Your task to perform on an android device: toggle location history Image 0: 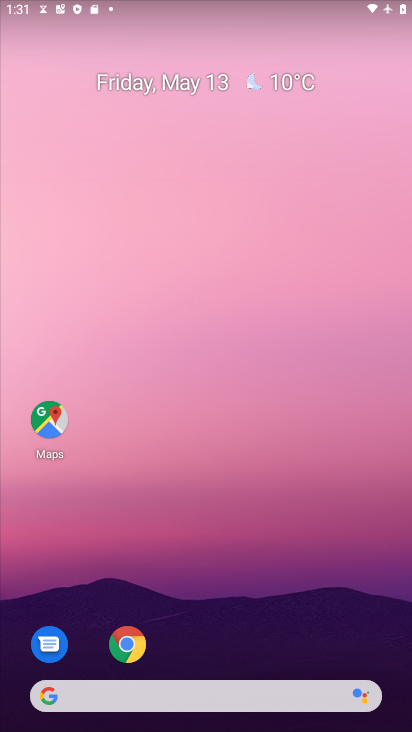
Step 0: drag from (213, 717) to (213, 123)
Your task to perform on an android device: toggle location history Image 1: 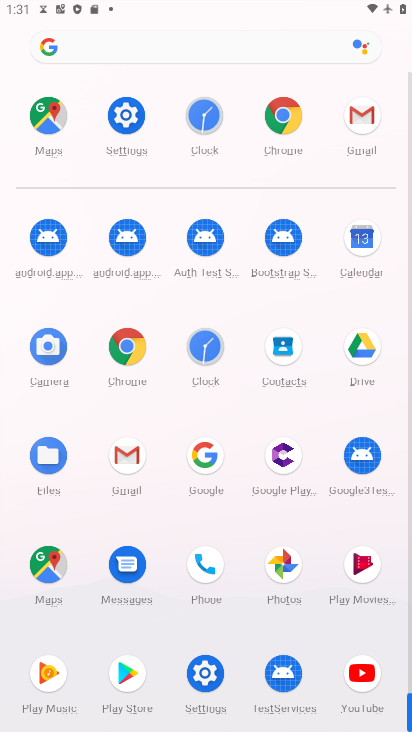
Step 1: click (126, 112)
Your task to perform on an android device: toggle location history Image 2: 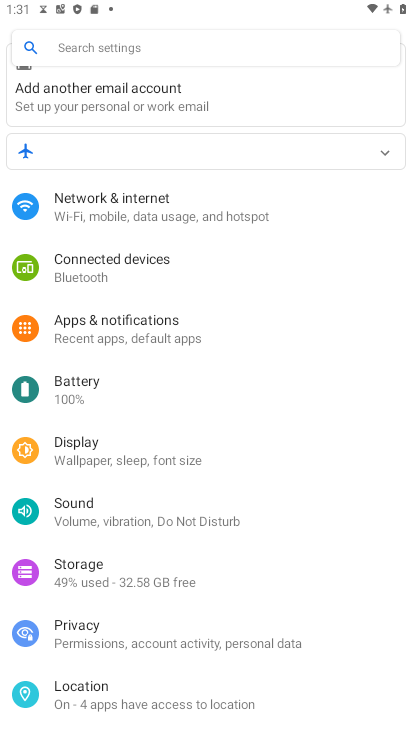
Step 2: click (82, 691)
Your task to perform on an android device: toggle location history Image 3: 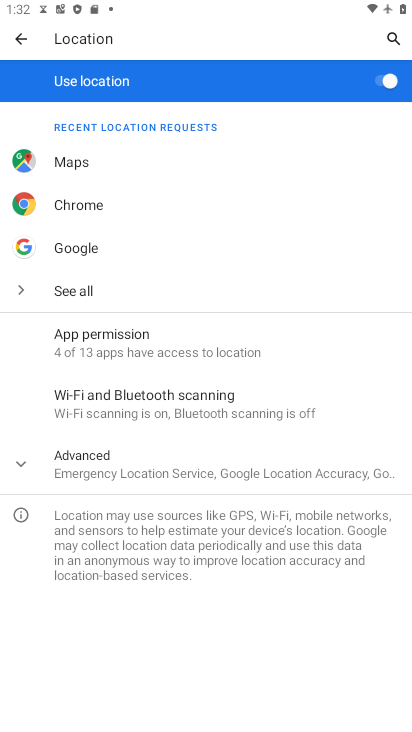
Step 3: click (70, 465)
Your task to perform on an android device: toggle location history Image 4: 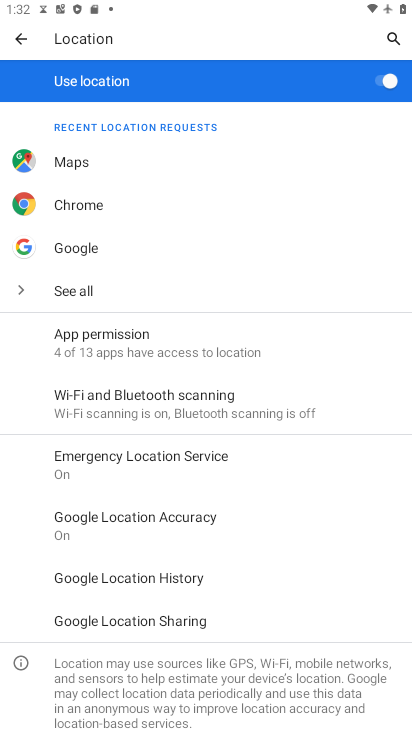
Step 4: click (111, 576)
Your task to perform on an android device: toggle location history Image 5: 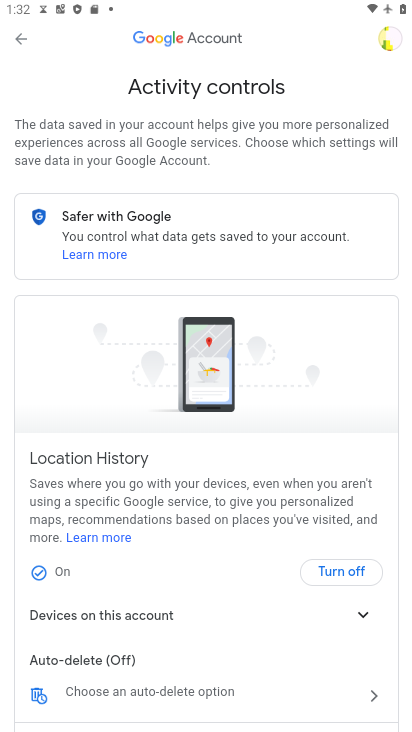
Step 5: click (337, 568)
Your task to perform on an android device: toggle location history Image 6: 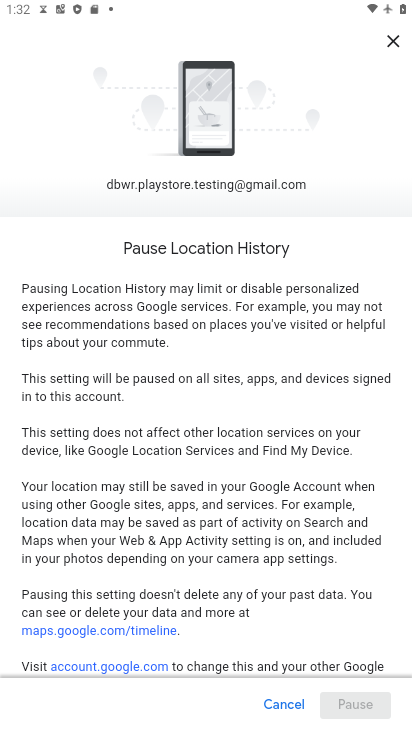
Step 6: drag from (282, 642) to (281, 217)
Your task to perform on an android device: toggle location history Image 7: 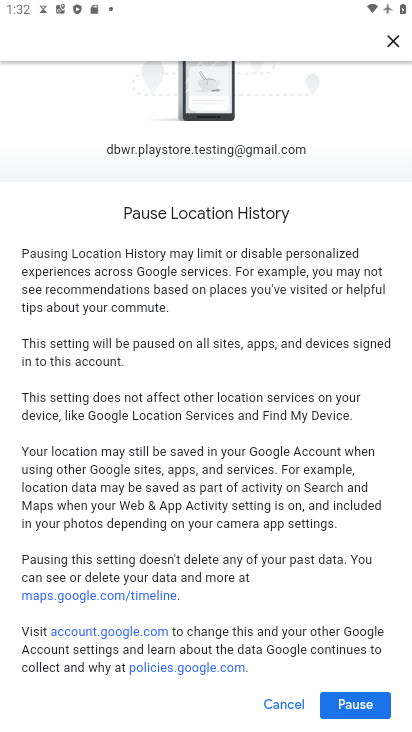
Step 7: click (349, 701)
Your task to perform on an android device: toggle location history Image 8: 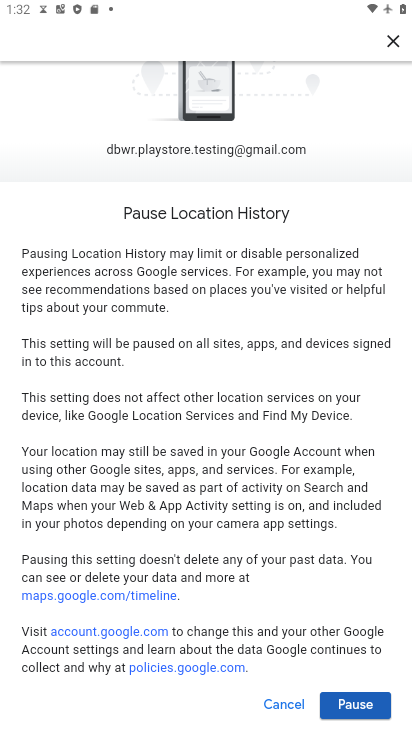
Step 8: click (350, 699)
Your task to perform on an android device: toggle location history Image 9: 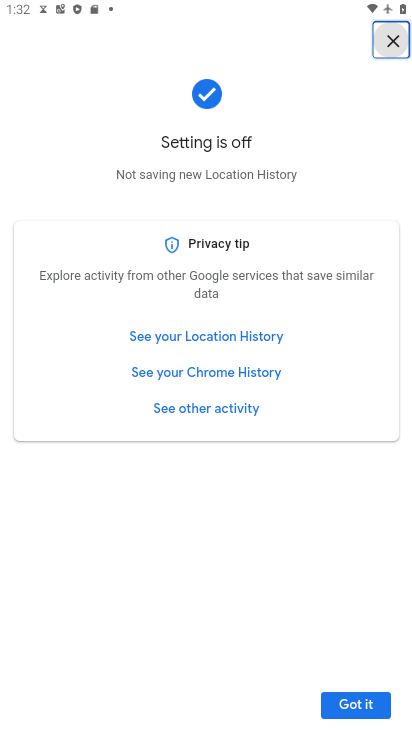
Step 9: click (359, 700)
Your task to perform on an android device: toggle location history Image 10: 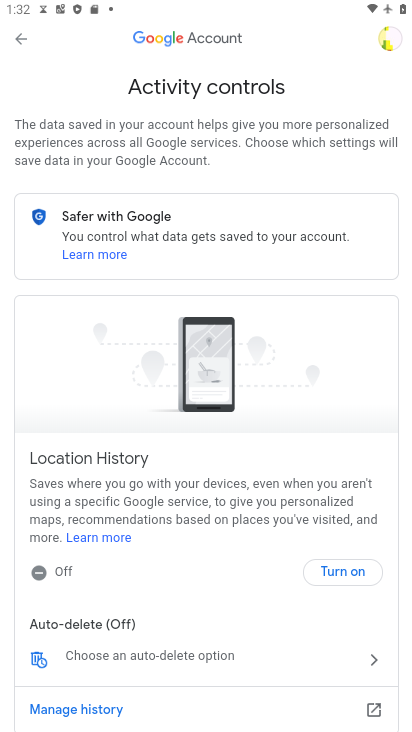
Step 10: task complete